Your task to perform on an android device: What's the weather today? Image 0: 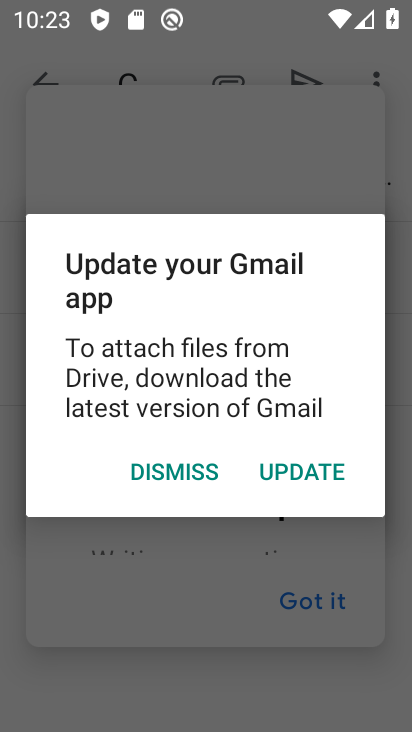
Step 0: press home button
Your task to perform on an android device: What's the weather today? Image 1: 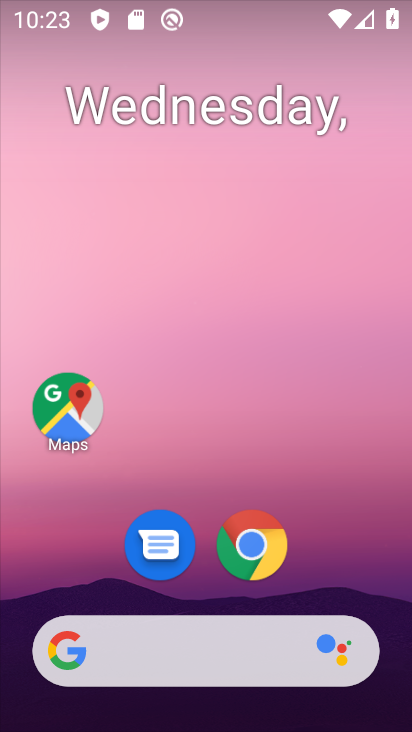
Step 1: drag from (204, 587) to (184, 219)
Your task to perform on an android device: What's the weather today? Image 2: 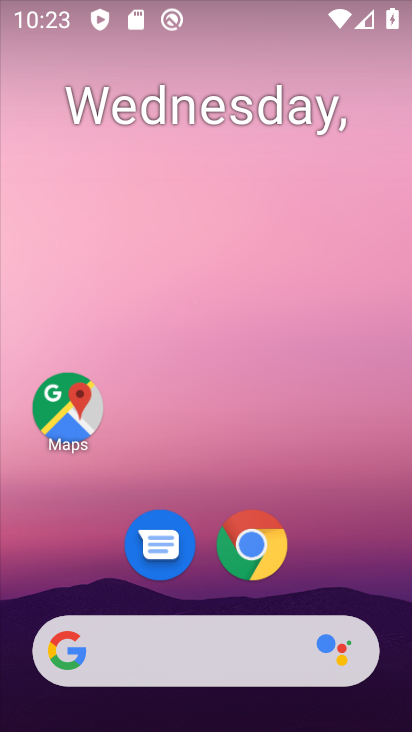
Step 2: drag from (217, 597) to (185, 215)
Your task to perform on an android device: What's the weather today? Image 3: 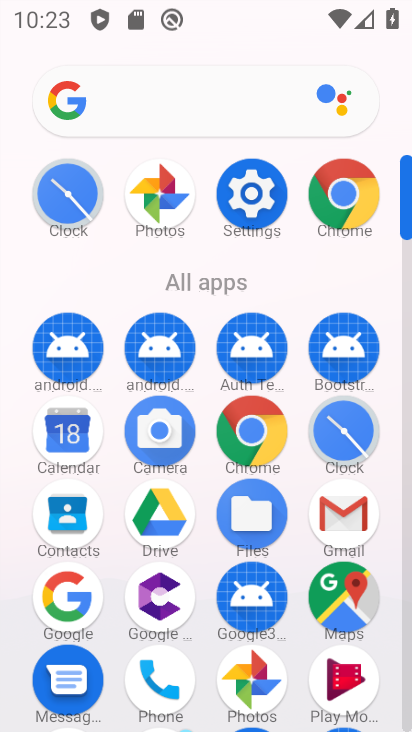
Step 3: click (87, 595)
Your task to perform on an android device: What's the weather today? Image 4: 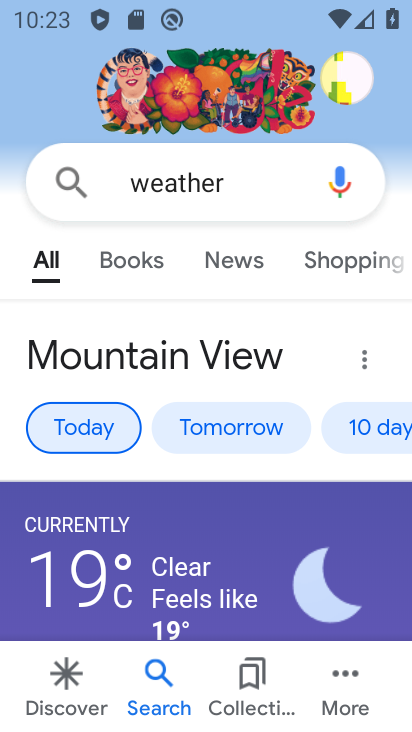
Step 4: task complete